Your task to perform on an android device: delete browsing data in the chrome app Image 0: 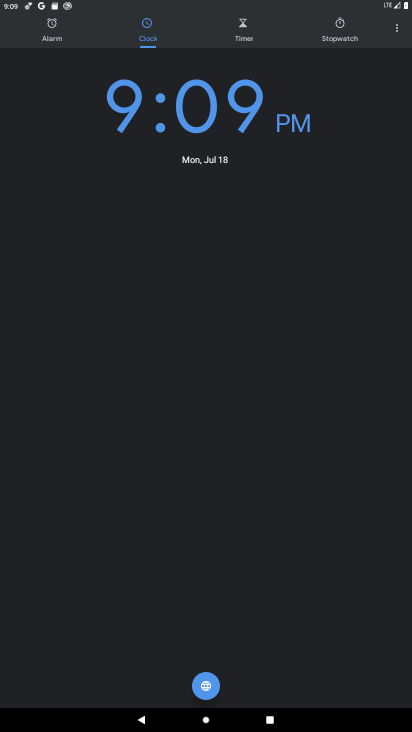
Step 0: press home button
Your task to perform on an android device: delete browsing data in the chrome app Image 1: 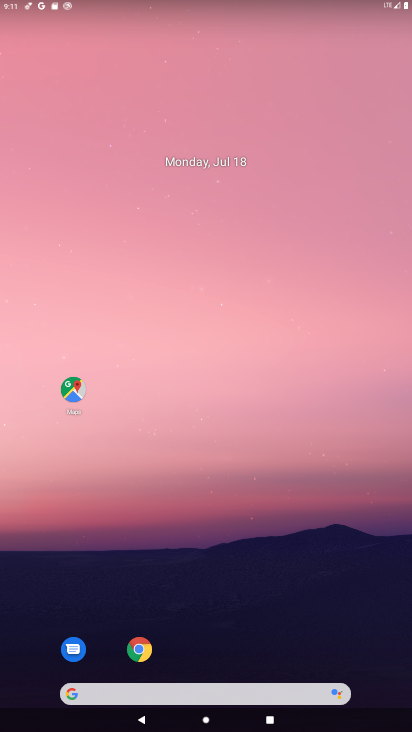
Step 1: click (143, 652)
Your task to perform on an android device: delete browsing data in the chrome app Image 2: 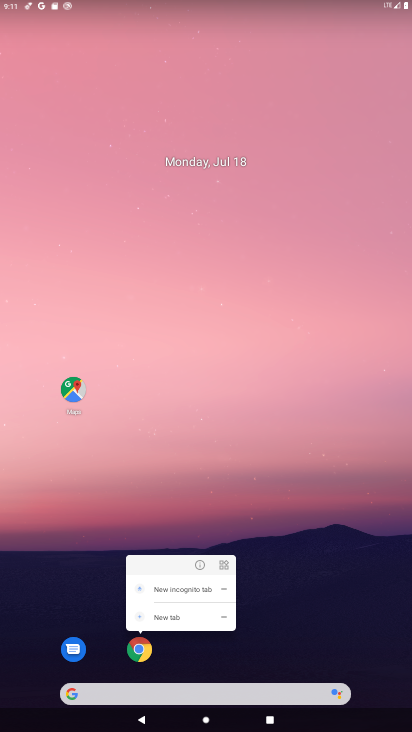
Step 2: click (143, 652)
Your task to perform on an android device: delete browsing data in the chrome app Image 3: 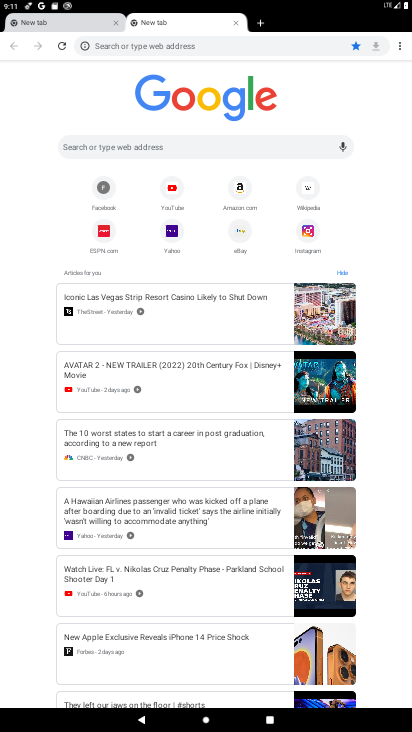
Step 3: click (400, 41)
Your task to perform on an android device: delete browsing data in the chrome app Image 4: 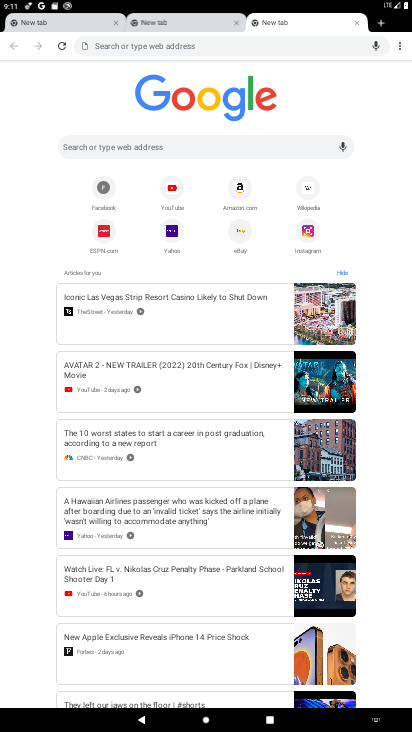
Step 4: click (400, 44)
Your task to perform on an android device: delete browsing data in the chrome app Image 5: 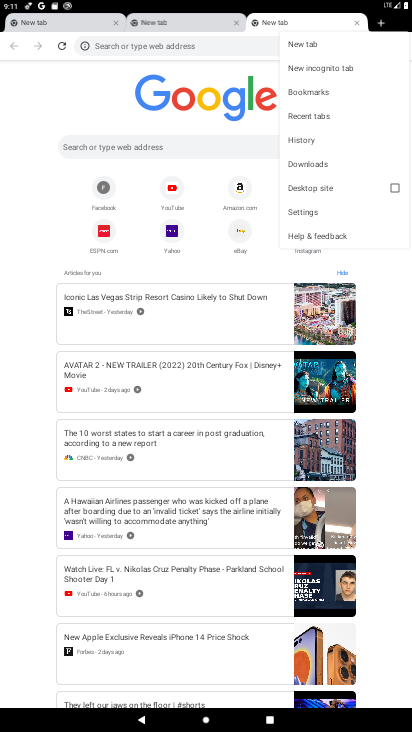
Step 5: click (307, 138)
Your task to perform on an android device: delete browsing data in the chrome app Image 6: 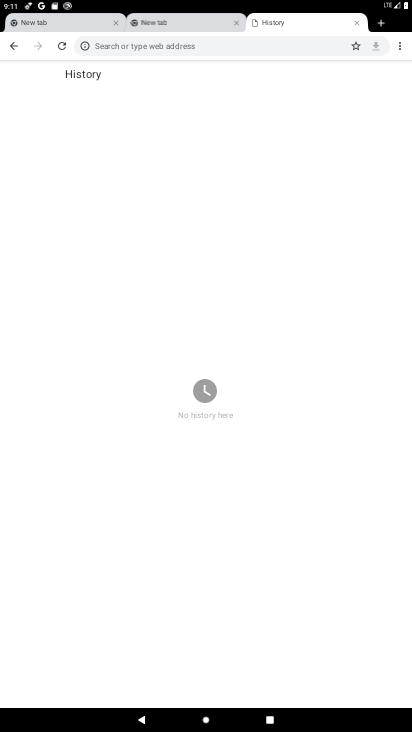
Step 6: task complete